Your task to perform on an android device: Check the news Image 0: 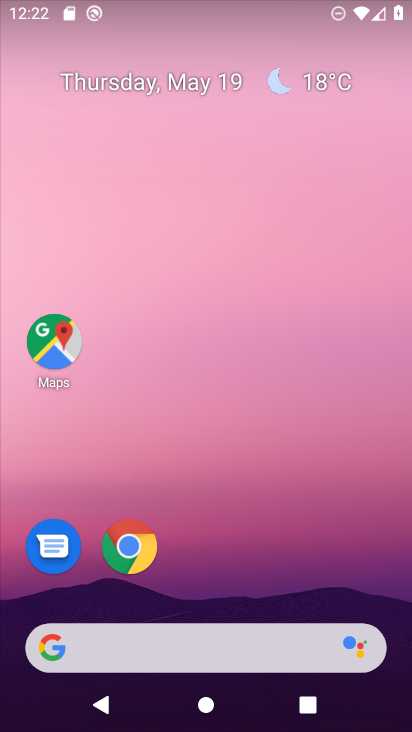
Step 0: drag from (4, 297) to (404, 301)
Your task to perform on an android device: Check the news Image 1: 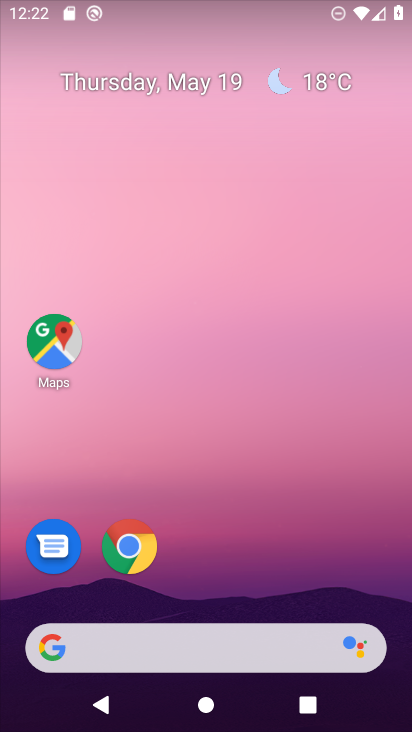
Step 1: task complete